Your task to perform on an android device: check out phone information Image 0: 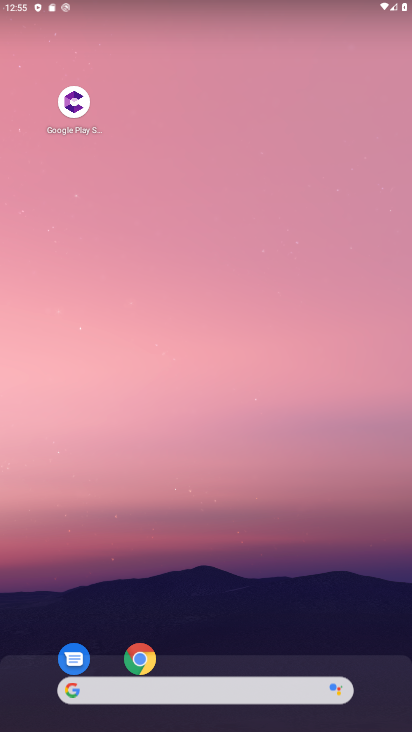
Step 0: press home button
Your task to perform on an android device: check out phone information Image 1: 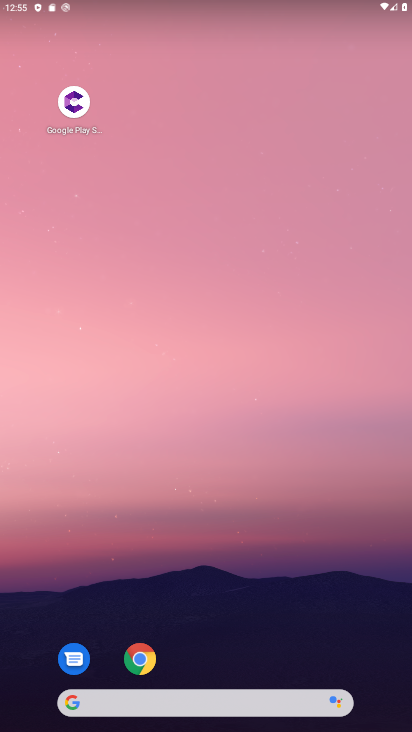
Step 1: drag from (281, 196) to (299, 90)
Your task to perform on an android device: check out phone information Image 2: 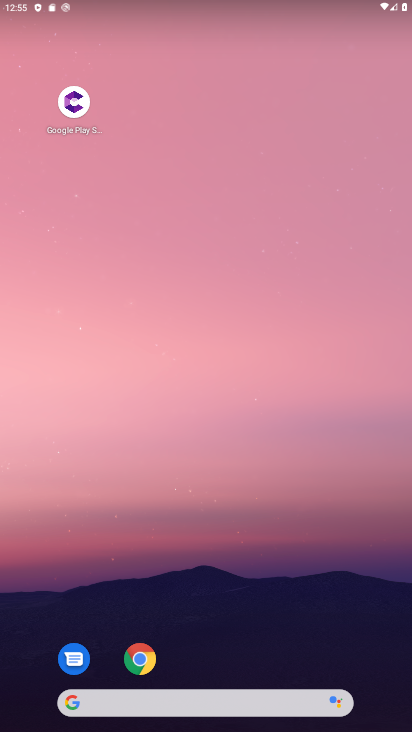
Step 2: drag from (257, 588) to (332, 3)
Your task to perform on an android device: check out phone information Image 3: 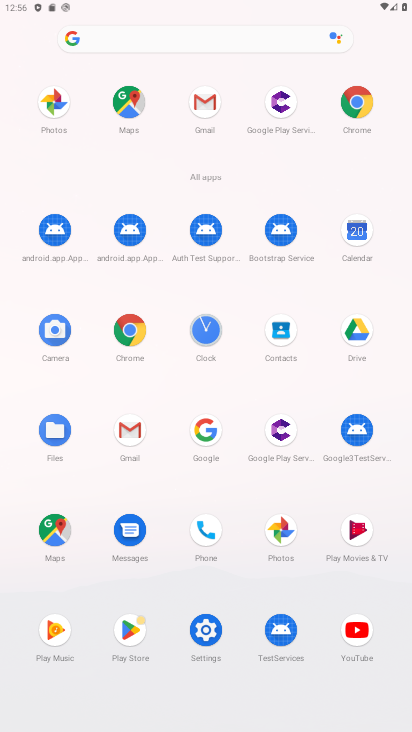
Step 3: drag from (172, 588) to (237, 153)
Your task to perform on an android device: check out phone information Image 4: 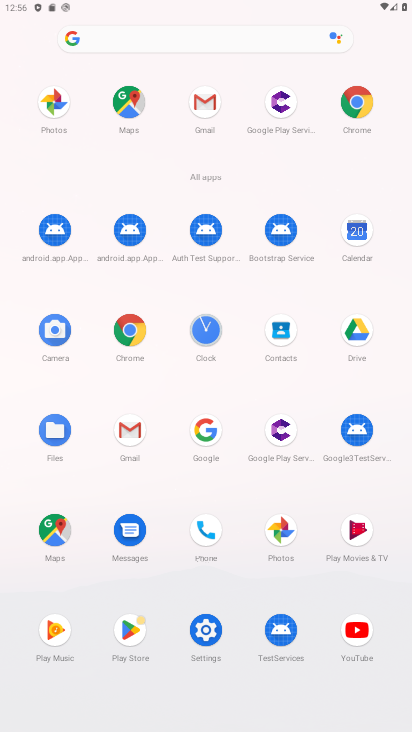
Step 4: click (212, 623)
Your task to perform on an android device: check out phone information Image 5: 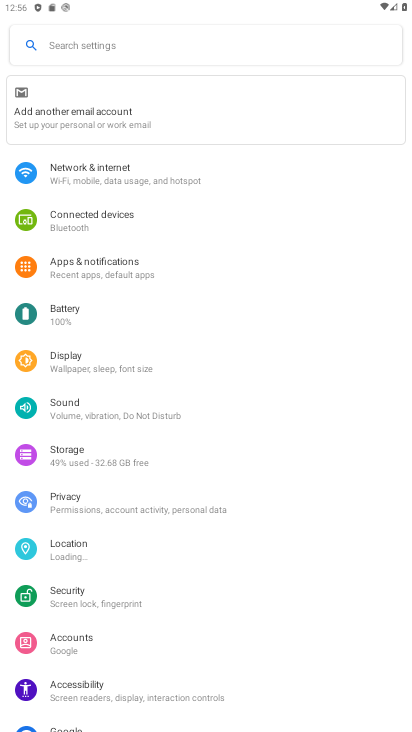
Step 5: drag from (247, 662) to (237, 107)
Your task to perform on an android device: check out phone information Image 6: 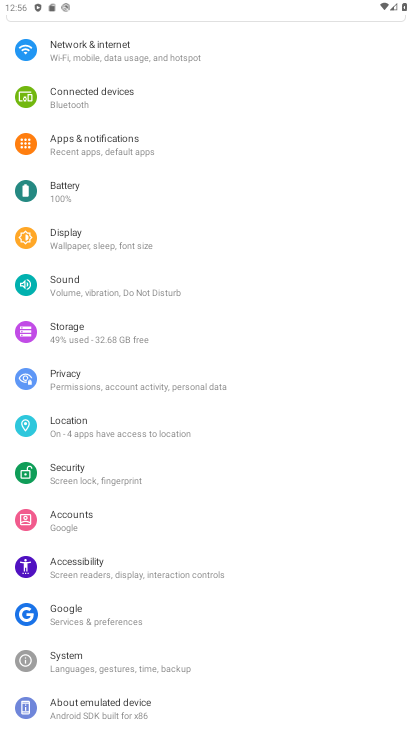
Step 6: click (102, 709)
Your task to perform on an android device: check out phone information Image 7: 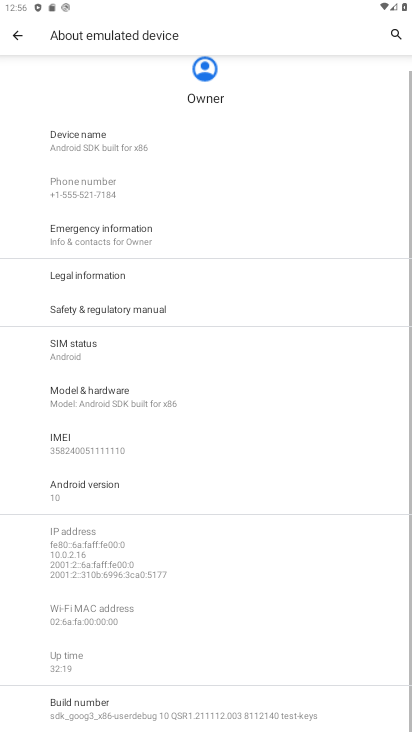
Step 7: click (119, 233)
Your task to perform on an android device: check out phone information Image 8: 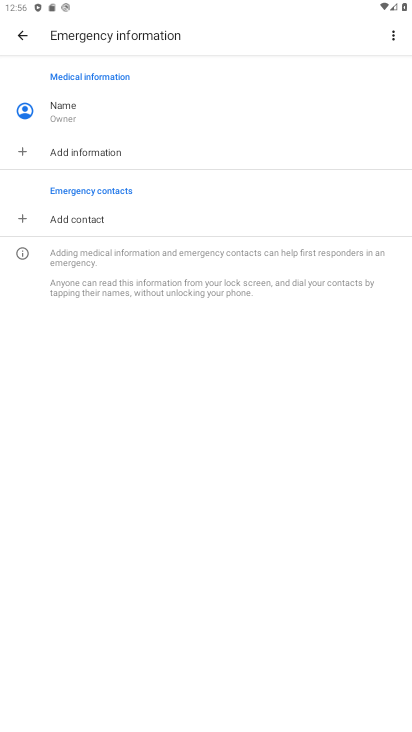
Step 8: task complete